Your task to perform on an android device: allow cookies in the chrome app Image 0: 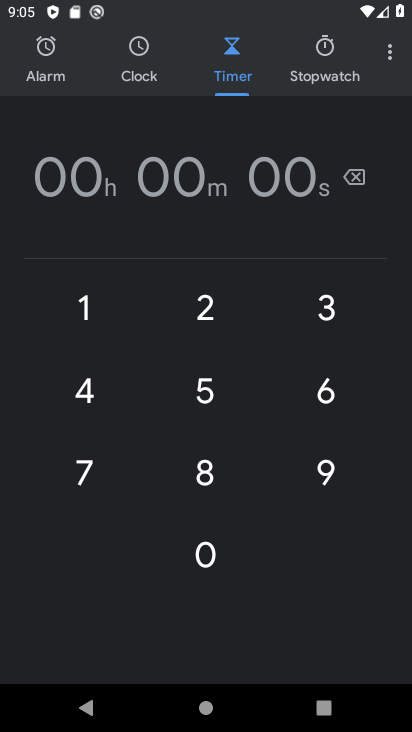
Step 0: press home button
Your task to perform on an android device: allow cookies in the chrome app Image 1: 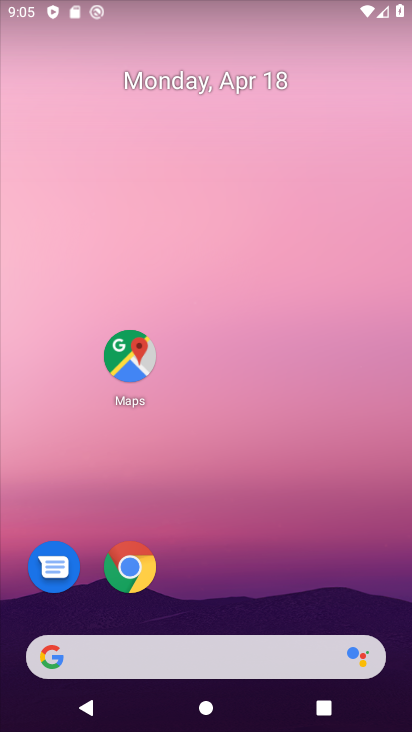
Step 1: drag from (256, 670) to (288, 328)
Your task to perform on an android device: allow cookies in the chrome app Image 2: 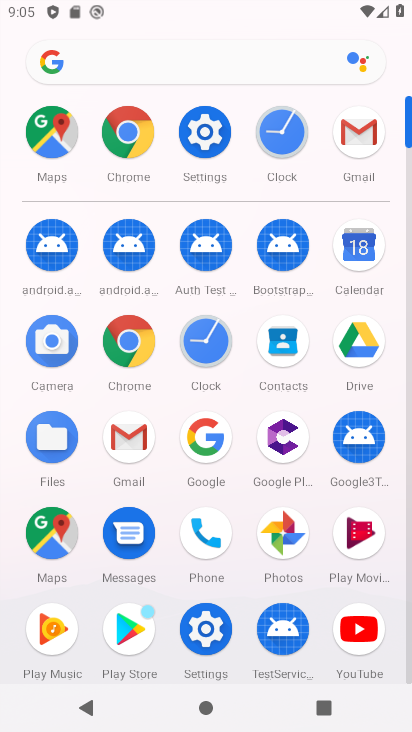
Step 2: click (140, 338)
Your task to perform on an android device: allow cookies in the chrome app Image 3: 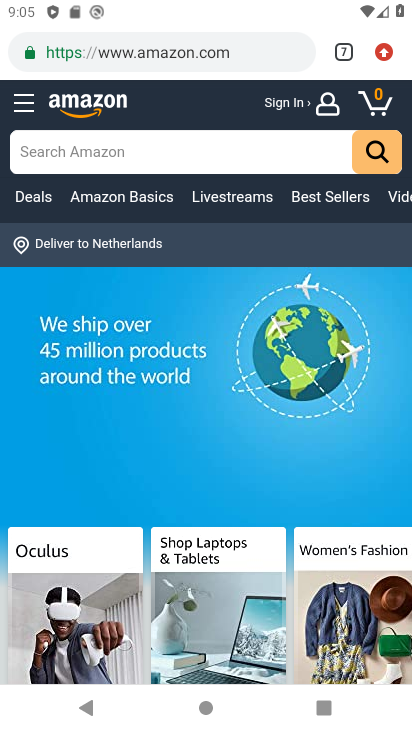
Step 3: click (387, 50)
Your task to perform on an android device: allow cookies in the chrome app Image 4: 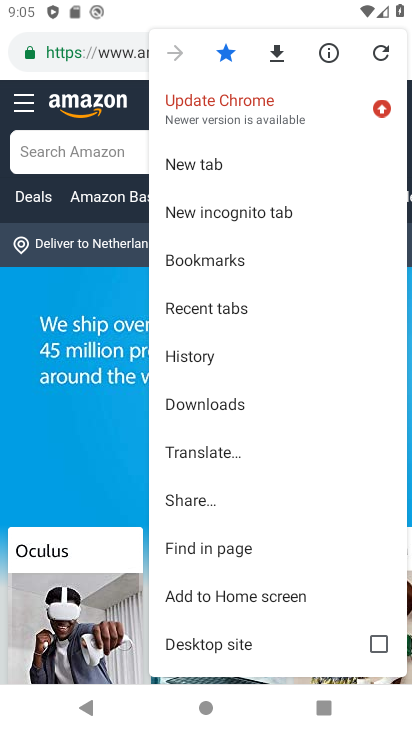
Step 4: drag from (211, 617) to (276, 422)
Your task to perform on an android device: allow cookies in the chrome app Image 5: 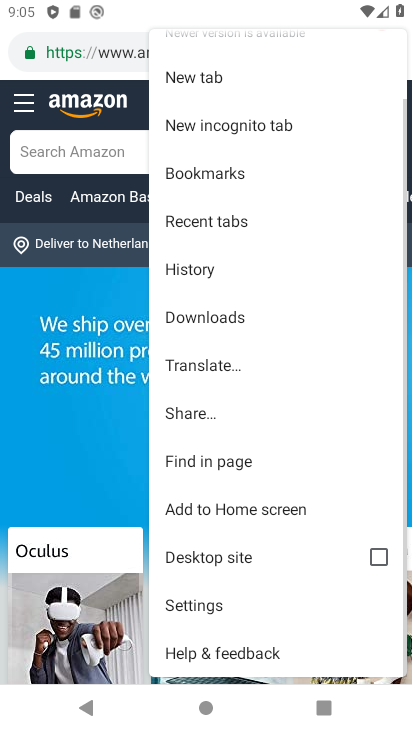
Step 5: click (223, 607)
Your task to perform on an android device: allow cookies in the chrome app Image 6: 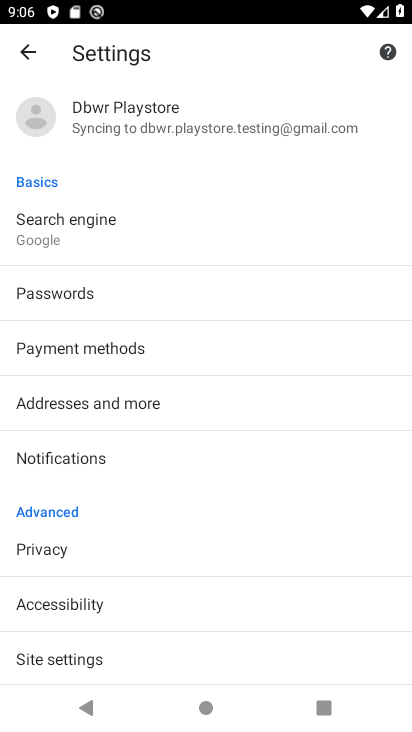
Step 6: click (70, 642)
Your task to perform on an android device: allow cookies in the chrome app Image 7: 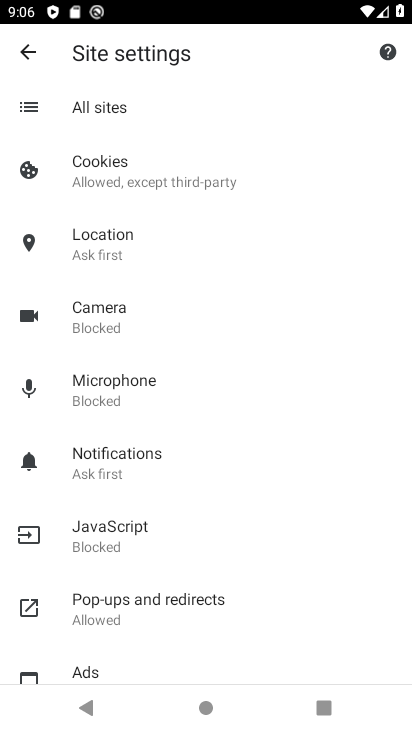
Step 7: click (166, 187)
Your task to perform on an android device: allow cookies in the chrome app Image 8: 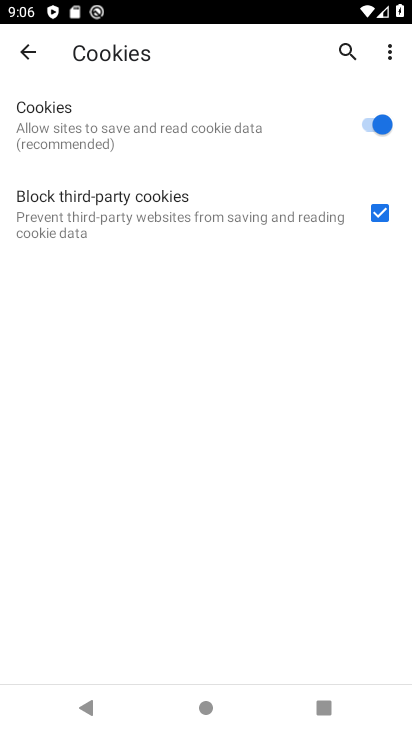
Step 8: click (209, 110)
Your task to perform on an android device: allow cookies in the chrome app Image 9: 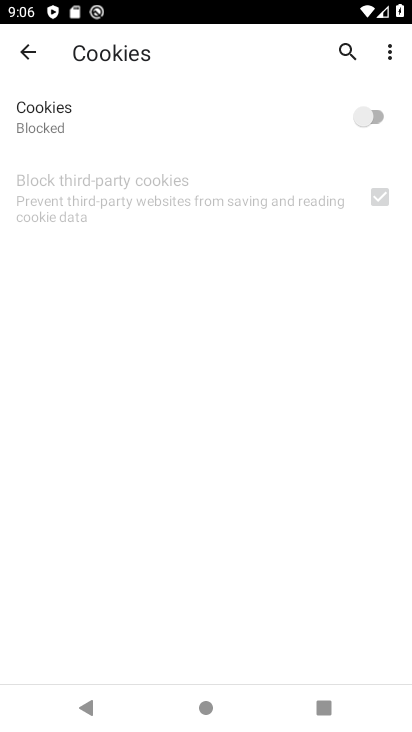
Step 9: click (209, 110)
Your task to perform on an android device: allow cookies in the chrome app Image 10: 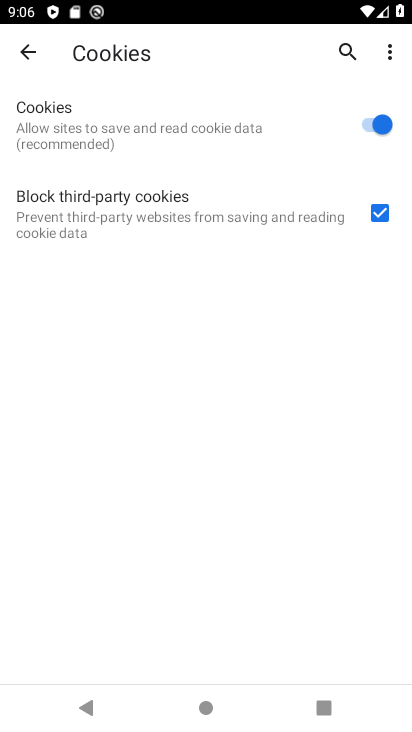
Step 10: task complete